Your task to perform on an android device: clear history in the chrome app Image 0: 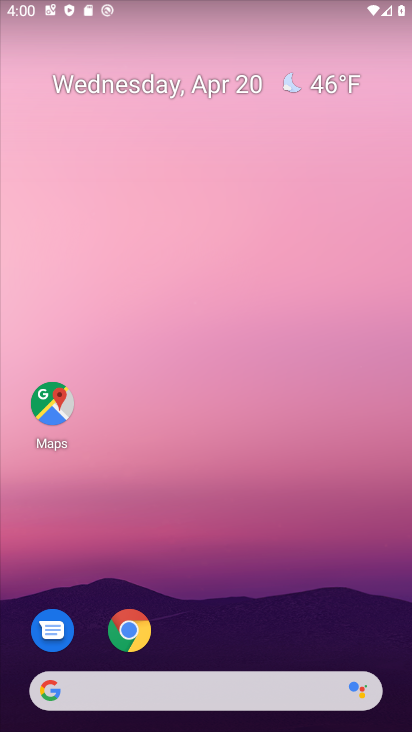
Step 0: click (123, 628)
Your task to perform on an android device: clear history in the chrome app Image 1: 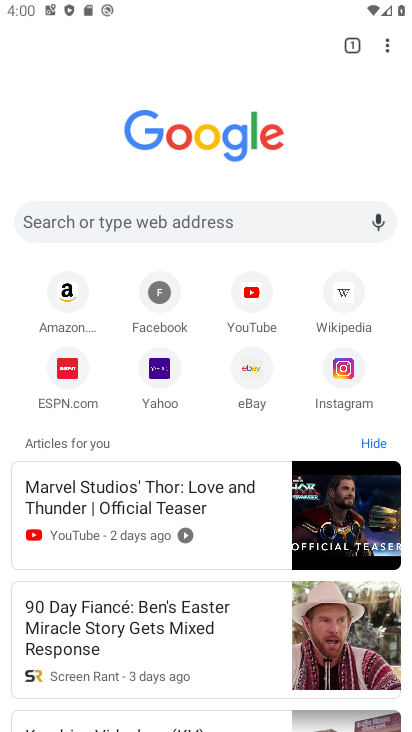
Step 1: click (387, 48)
Your task to perform on an android device: clear history in the chrome app Image 2: 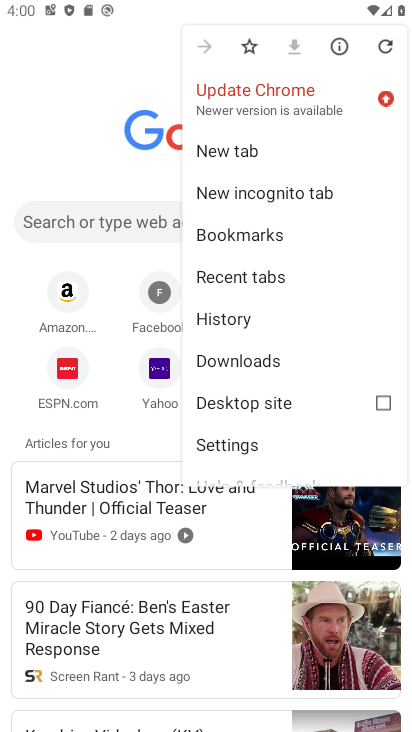
Step 2: click (240, 316)
Your task to perform on an android device: clear history in the chrome app Image 3: 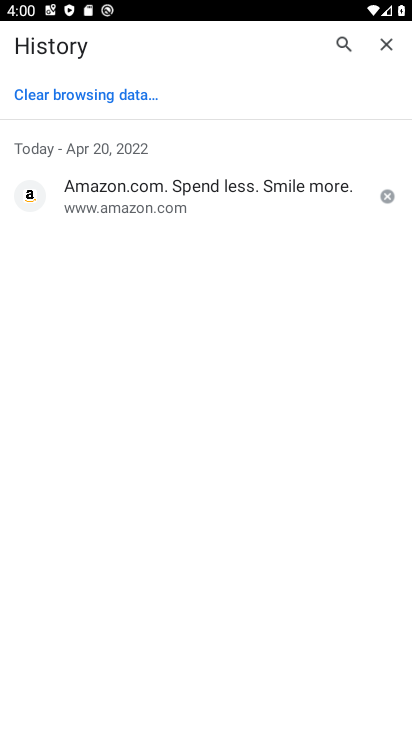
Step 3: click (99, 89)
Your task to perform on an android device: clear history in the chrome app Image 4: 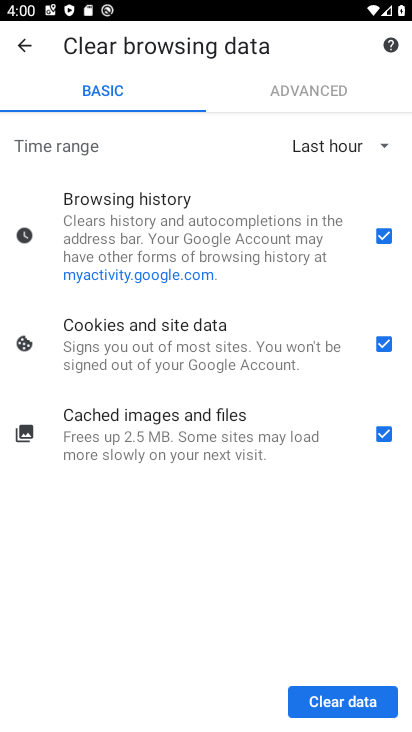
Step 4: click (337, 702)
Your task to perform on an android device: clear history in the chrome app Image 5: 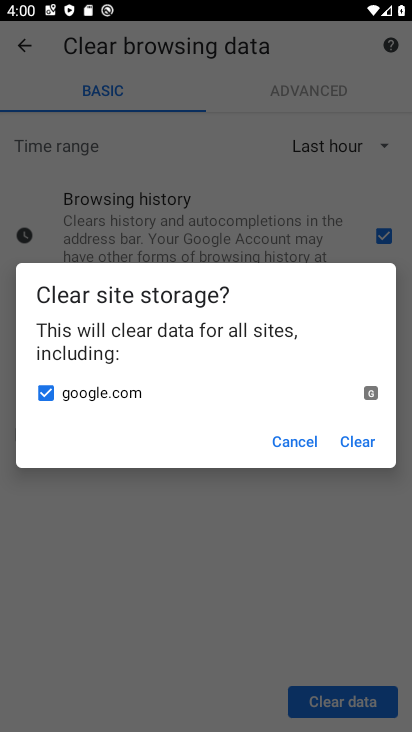
Step 5: click (351, 437)
Your task to perform on an android device: clear history in the chrome app Image 6: 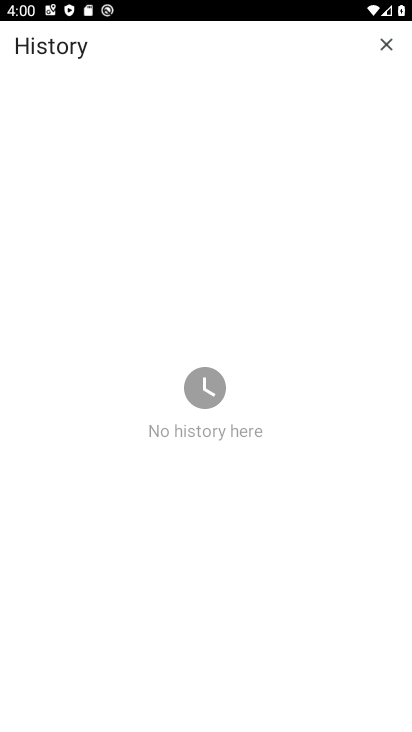
Step 6: task complete